Your task to perform on an android device: turn on the 12-hour format for clock Image 0: 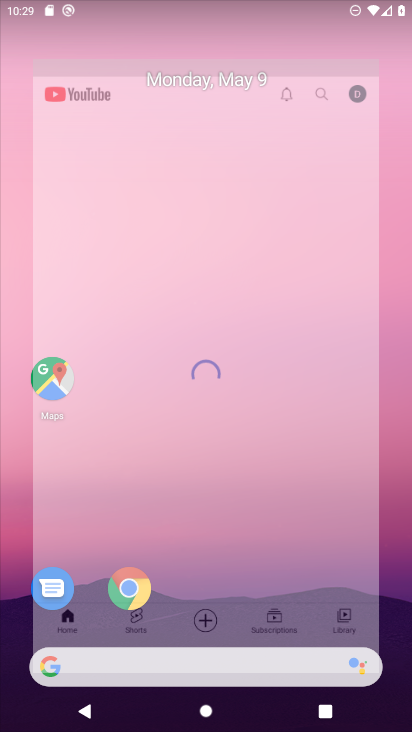
Step 0: drag from (238, 559) to (197, 94)
Your task to perform on an android device: turn on the 12-hour format for clock Image 1: 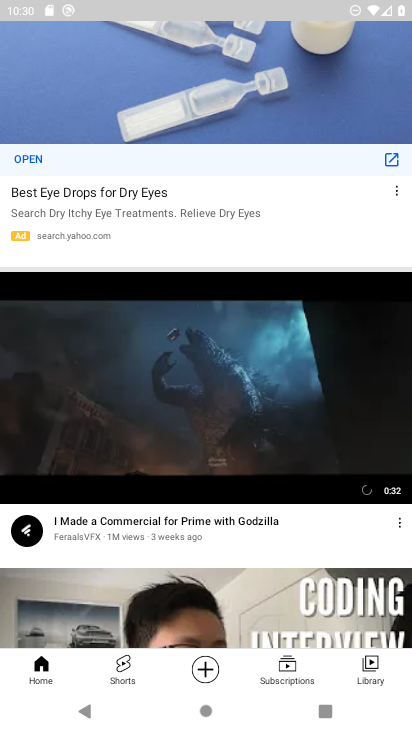
Step 1: press home button
Your task to perform on an android device: turn on the 12-hour format for clock Image 2: 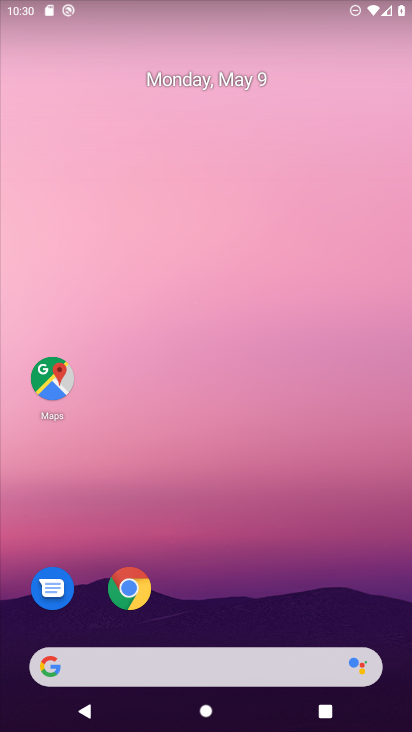
Step 2: drag from (270, 570) to (262, 152)
Your task to perform on an android device: turn on the 12-hour format for clock Image 3: 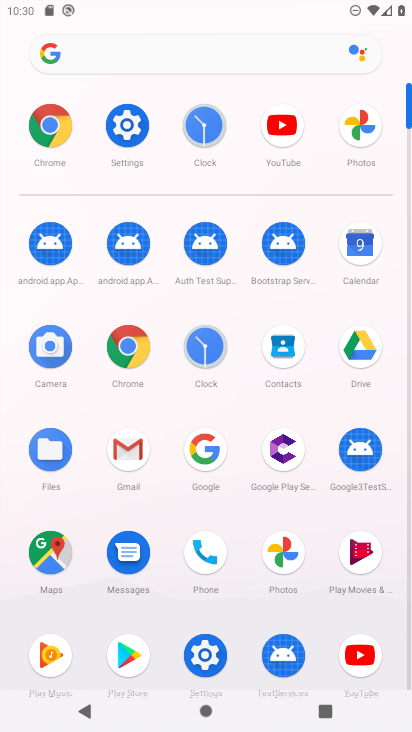
Step 3: click (216, 135)
Your task to perform on an android device: turn on the 12-hour format for clock Image 4: 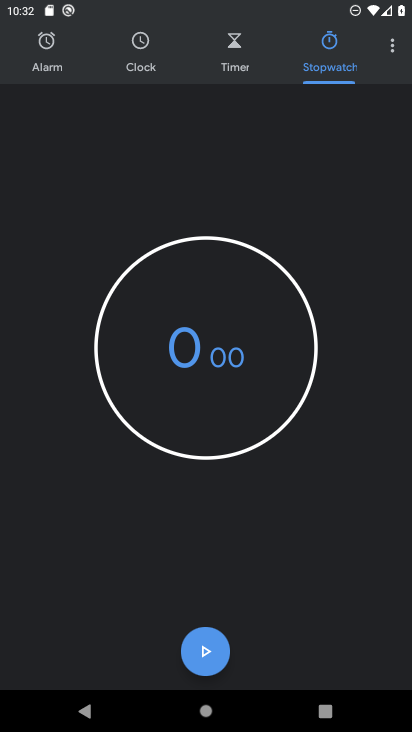
Step 4: click (390, 55)
Your task to perform on an android device: turn on the 12-hour format for clock Image 5: 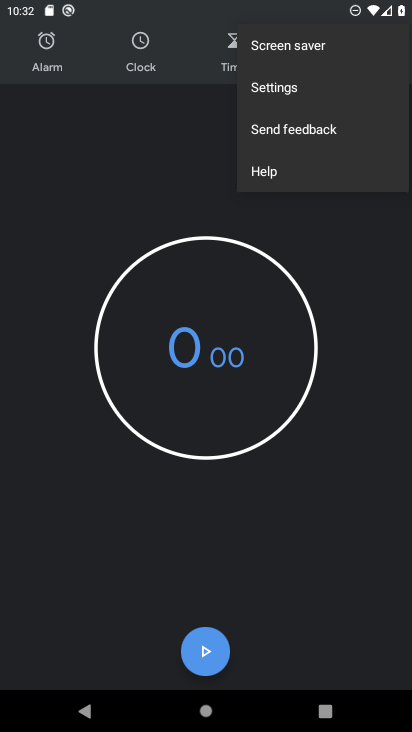
Step 5: click (338, 89)
Your task to perform on an android device: turn on the 12-hour format for clock Image 6: 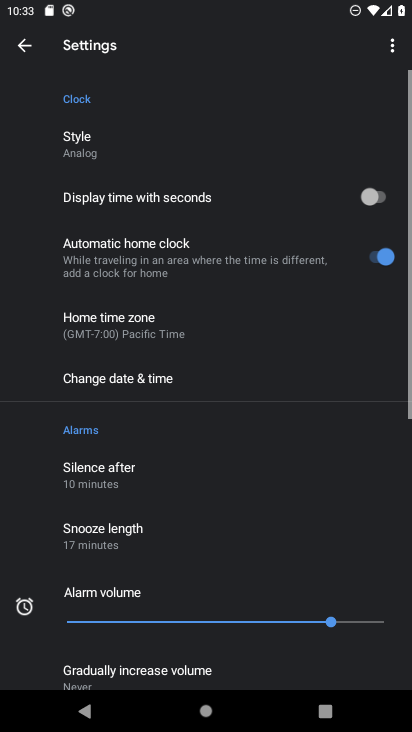
Step 6: drag from (104, 654) to (147, 272)
Your task to perform on an android device: turn on the 12-hour format for clock Image 7: 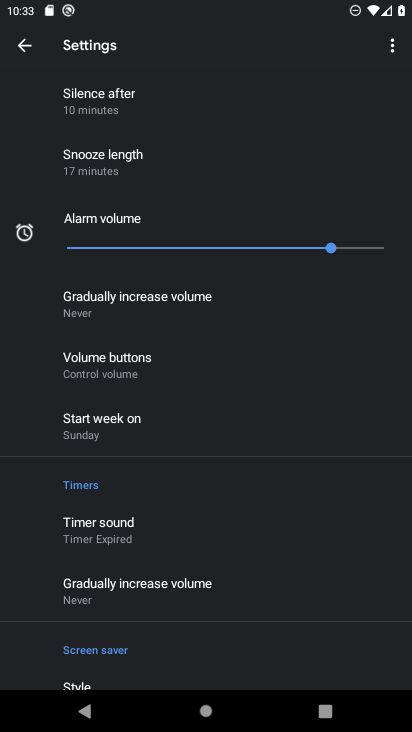
Step 7: drag from (156, 170) to (156, 517)
Your task to perform on an android device: turn on the 12-hour format for clock Image 8: 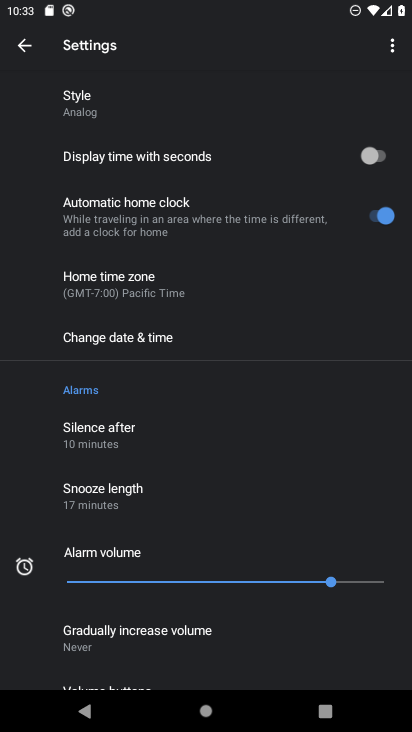
Step 8: click (153, 350)
Your task to perform on an android device: turn on the 12-hour format for clock Image 9: 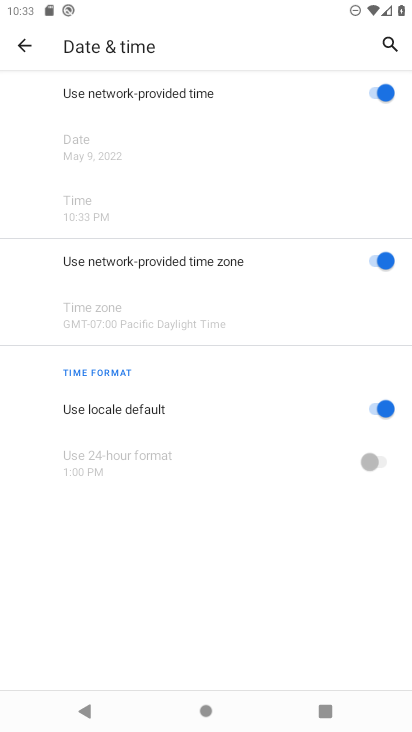
Step 9: task complete